Your task to perform on an android device: turn on the 12-hour format for clock Image 0: 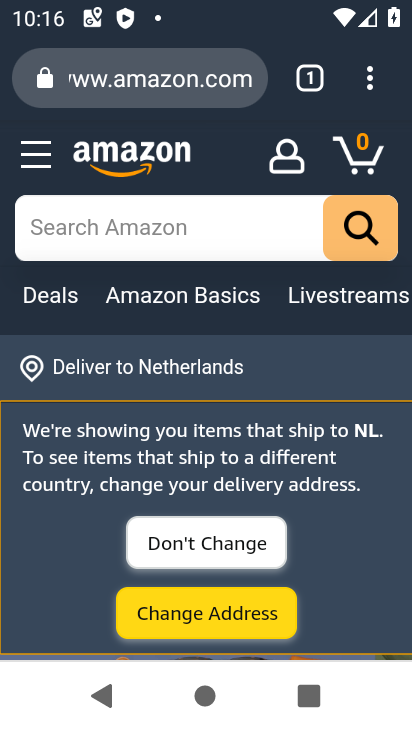
Step 0: press home button
Your task to perform on an android device: turn on the 12-hour format for clock Image 1: 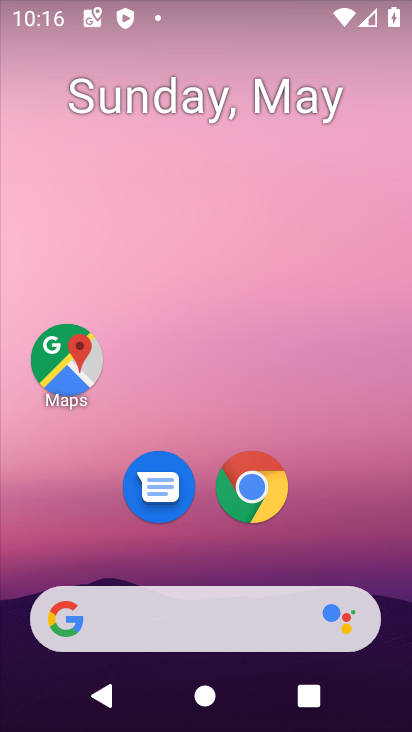
Step 1: drag from (376, 550) to (383, 149)
Your task to perform on an android device: turn on the 12-hour format for clock Image 2: 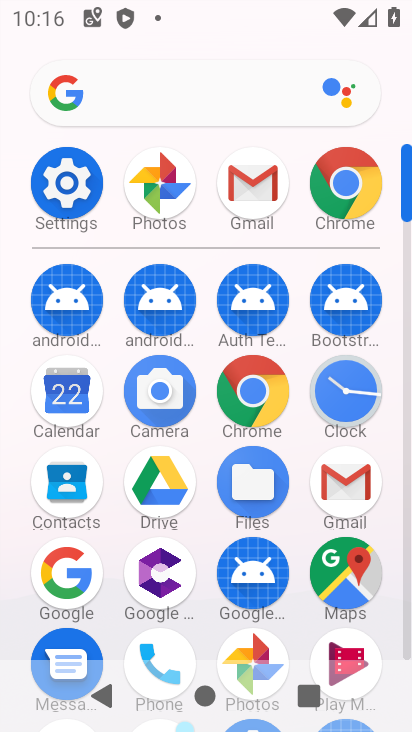
Step 2: click (346, 388)
Your task to perform on an android device: turn on the 12-hour format for clock Image 3: 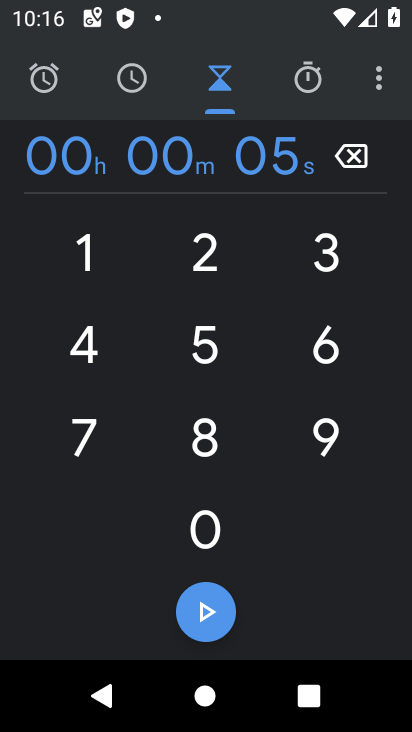
Step 3: click (377, 85)
Your task to perform on an android device: turn on the 12-hour format for clock Image 4: 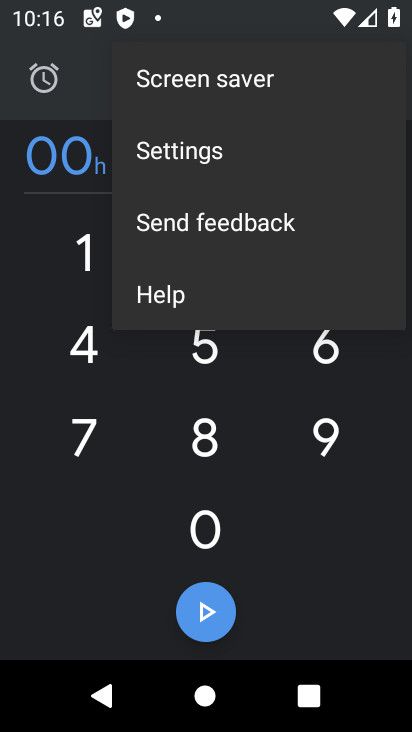
Step 4: click (221, 154)
Your task to perform on an android device: turn on the 12-hour format for clock Image 5: 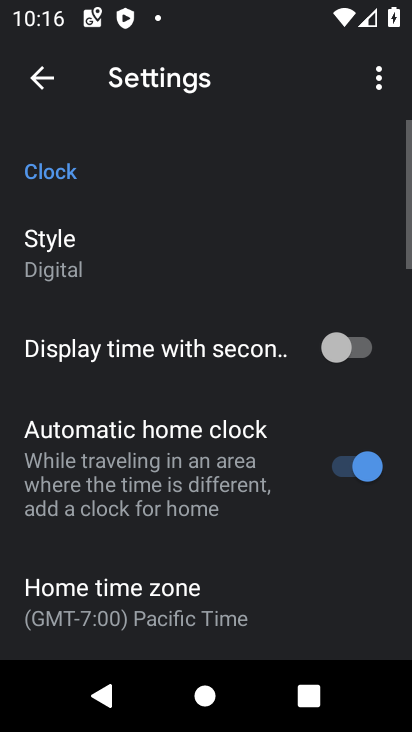
Step 5: drag from (280, 525) to (280, 453)
Your task to perform on an android device: turn on the 12-hour format for clock Image 6: 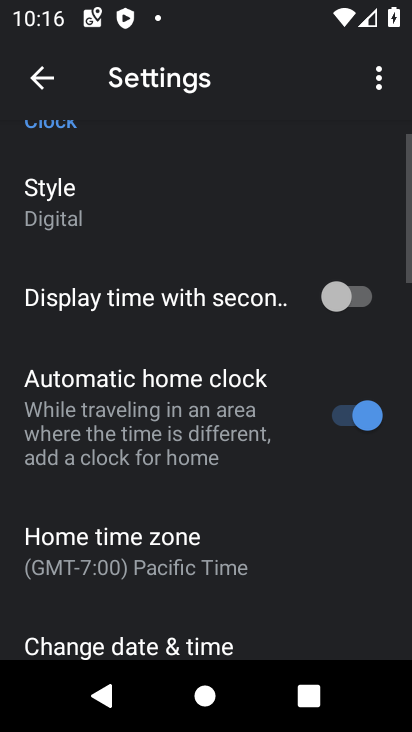
Step 6: drag from (286, 547) to (304, 452)
Your task to perform on an android device: turn on the 12-hour format for clock Image 7: 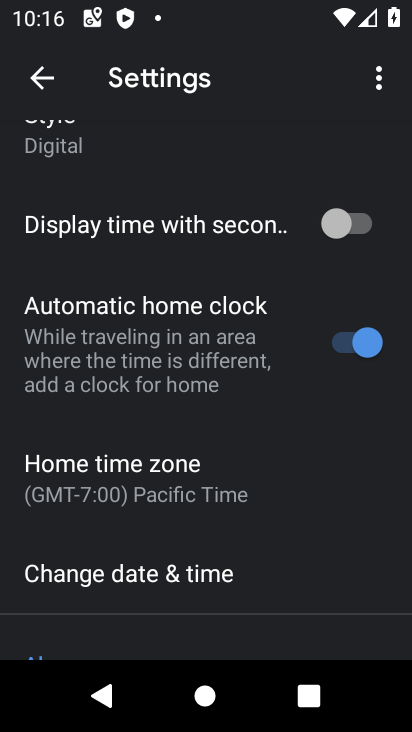
Step 7: drag from (298, 539) to (292, 442)
Your task to perform on an android device: turn on the 12-hour format for clock Image 8: 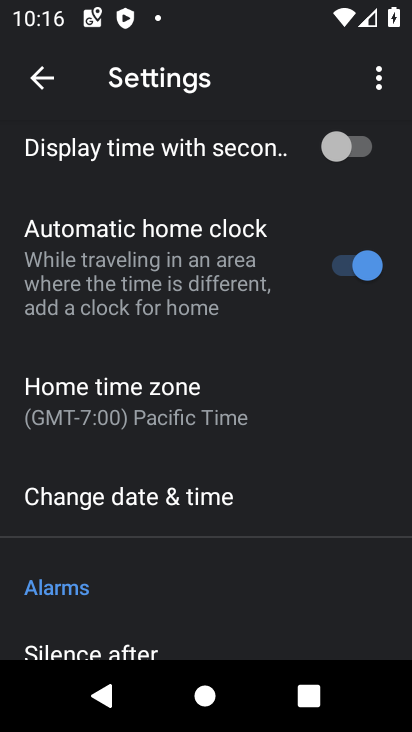
Step 8: click (213, 502)
Your task to perform on an android device: turn on the 12-hour format for clock Image 9: 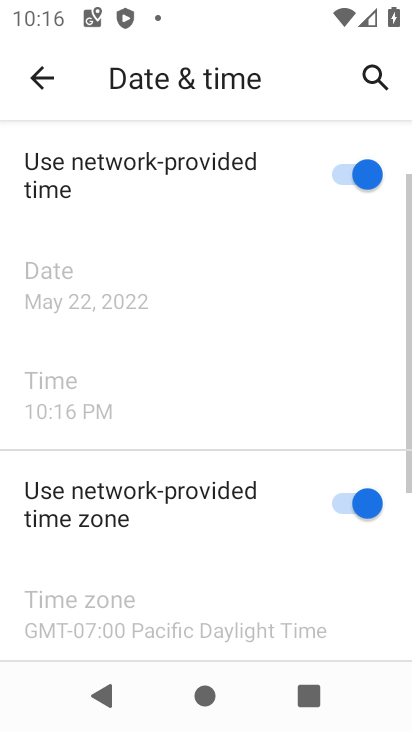
Step 9: task complete